Your task to perform on an android device: Open Chrome and go to the settings page Image 0: 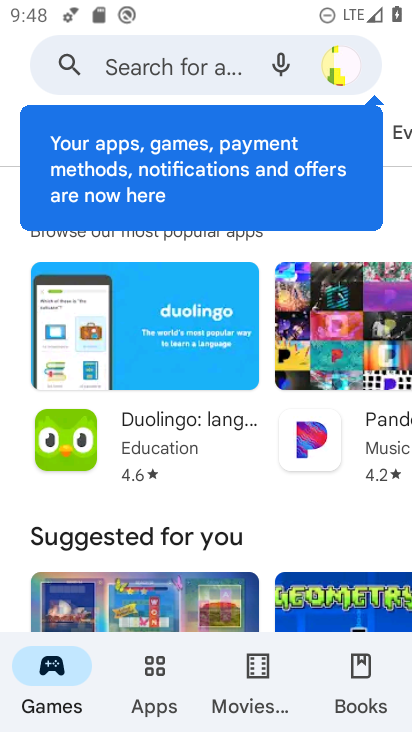
Step 0: press home button
Your task to perform on an android device: Open Chrome and go to the settings page Image 1: 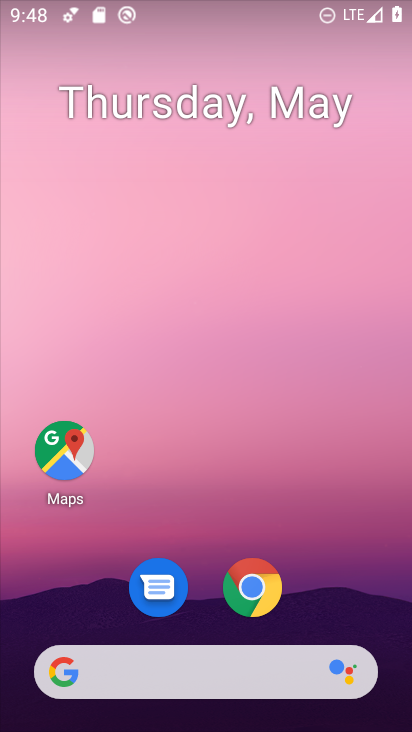
Step 1: click (264, 605)
Your task to perform on an android device: Open Chrome and go to the settings page Image 2: 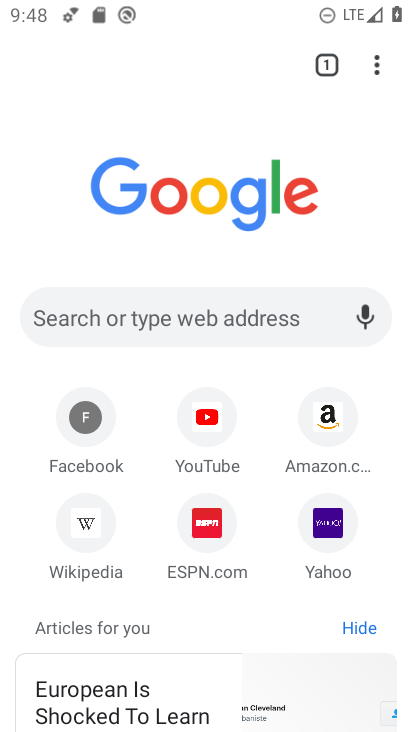
Step 2: click (378, 66)
Your task to perform on an android device: Open Chrome and go to the settings page Image 3: 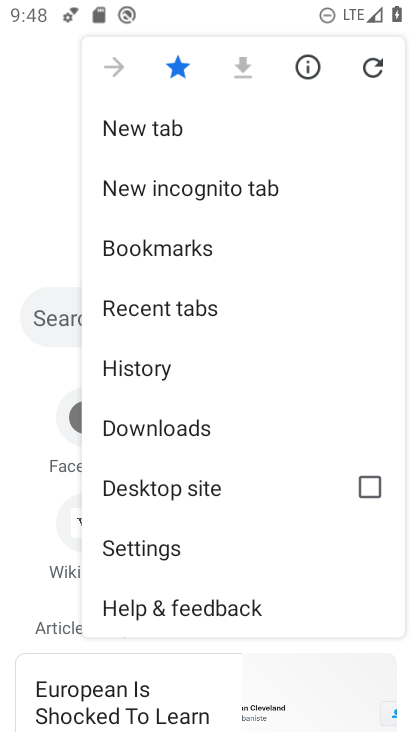
Step 3: click (148, 546)
Your task to perform on an android device: Open Chrome and go to the settings page Image 4: 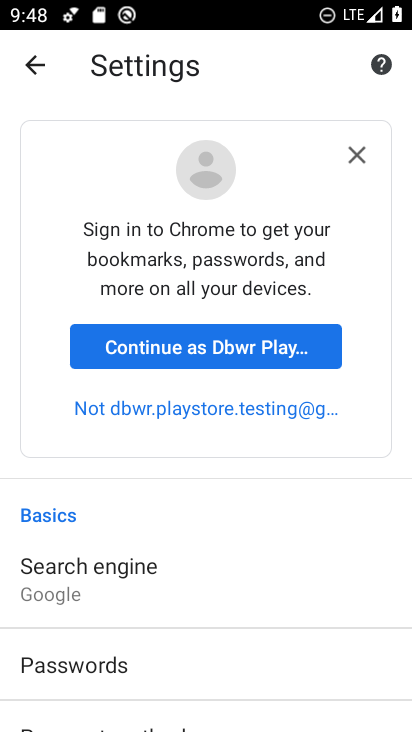
Step 4: task complete